Your task to perform on an android device: search for starred emails in the gmail app Image 0: 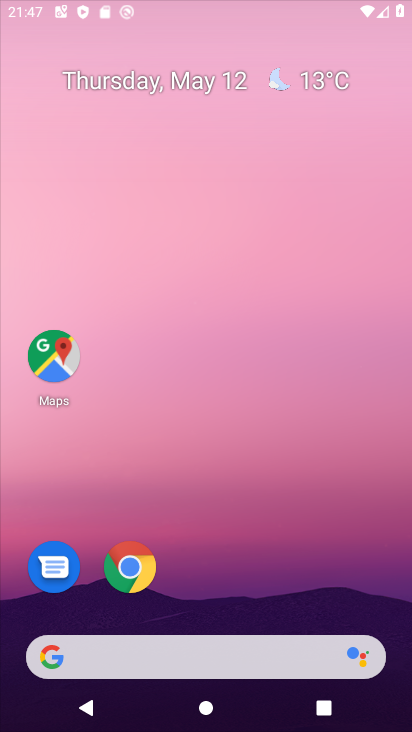
Step 0: drag from (224, 618) to (231, 135)
Your task to perform on an android device: search for starred emails in the gmail app Image 1: 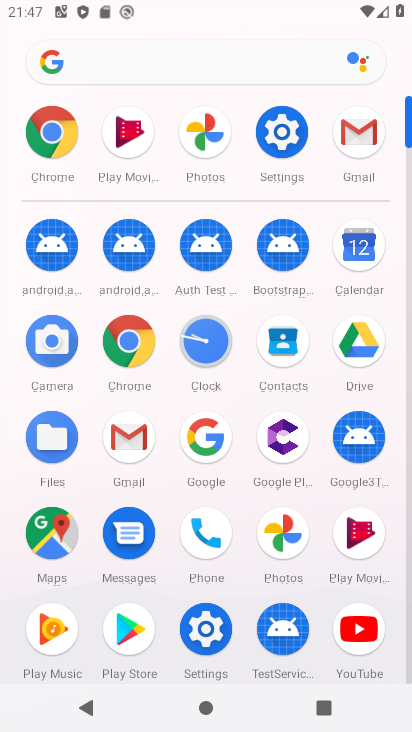
Step 1: click (125, 434)
Your task to perform on an android device: search for starred emails in the gmail app Image 2: 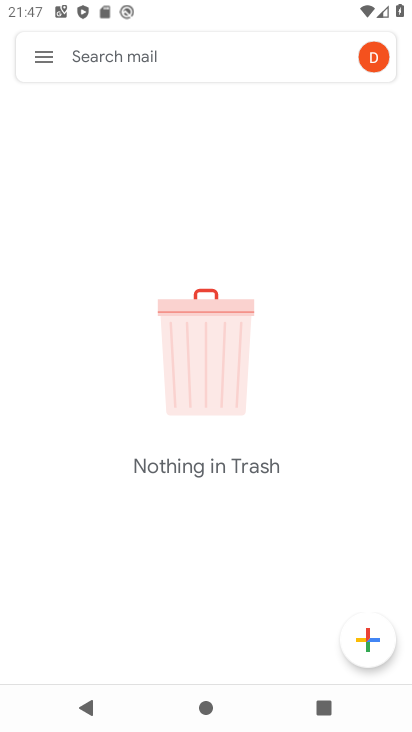
Step 2: click (40, 56)
Your task to perform on an android device: search for starred emails in the gmail app Image 3: 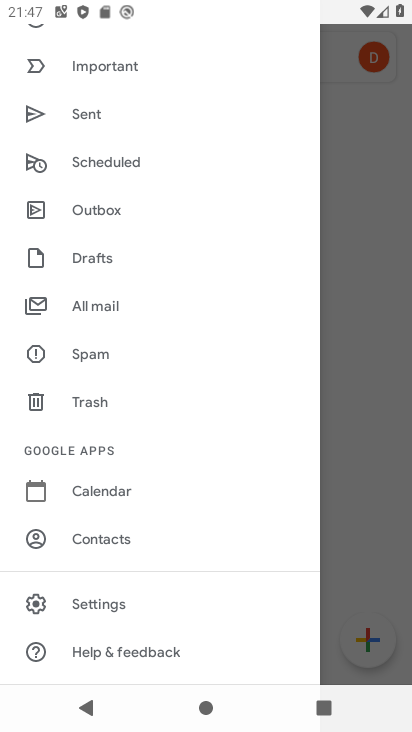
Step 3: drag from (112, 123) to (126, 432)
Your task to perform on an android device: search for starred emails in the gmail app Image 4: 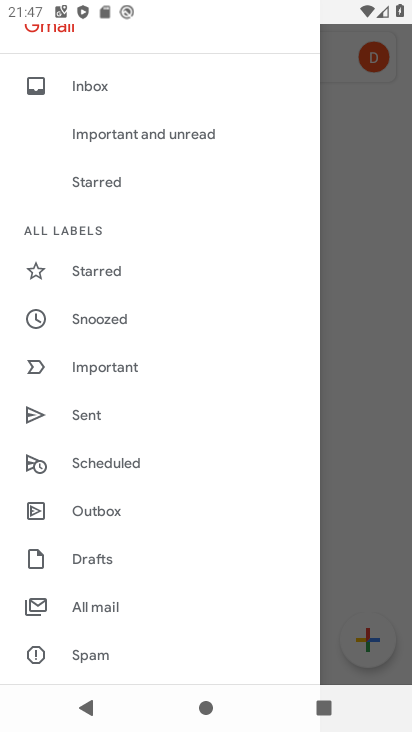
Step 4: click (131, 268)
Your task to perform on an android device: search for starred emails in the gmail app Image 5: 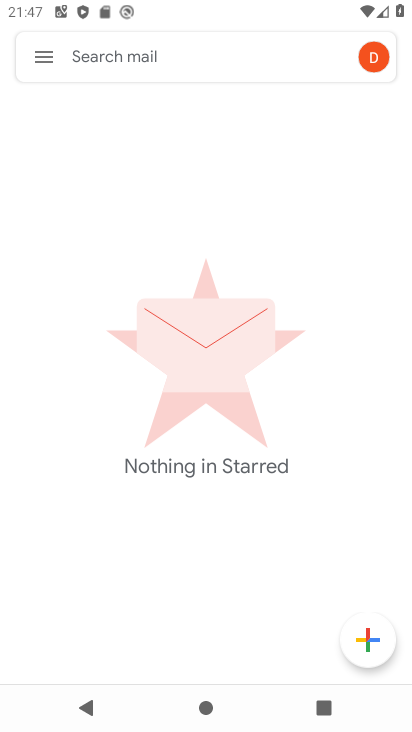
Step 5: task complete